Your task to perform on an android device: check data usage Image 0: 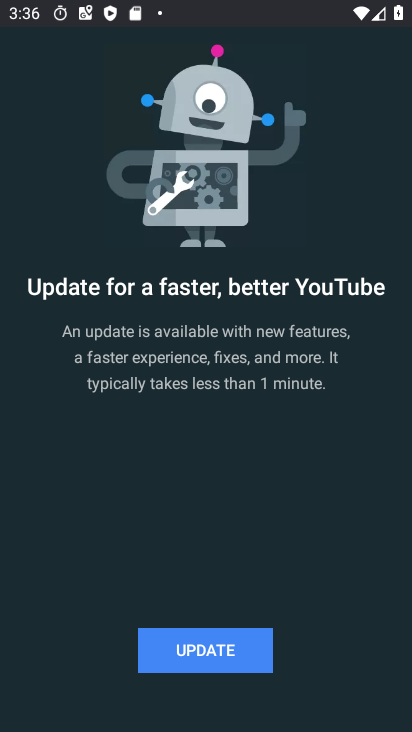
Step 0: press home button
Your task to perform on an android device: check data usage Image 1: 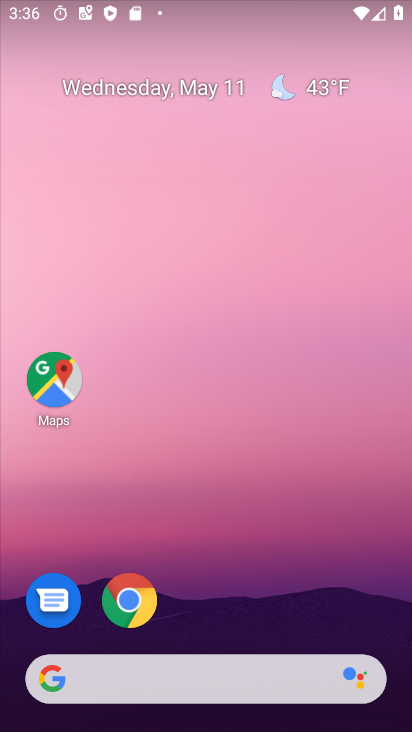
Step 1: drag from (330, 637) to (386, 4)
Your task to perform on an android device: check data usage Image 2: 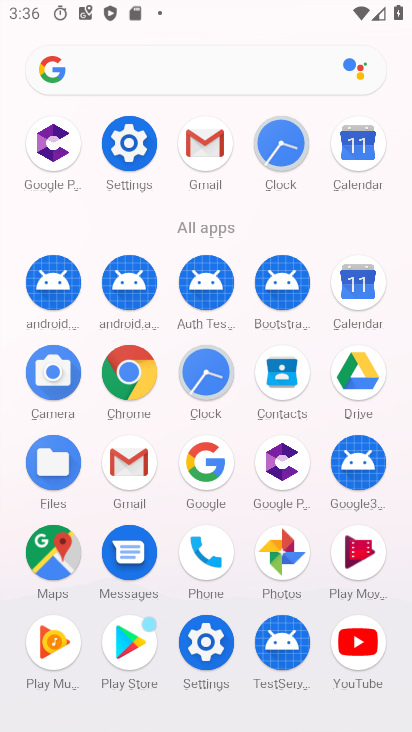
Step 2: click (128, 145)
Your task to perform on an android device: check data usage Image 3: 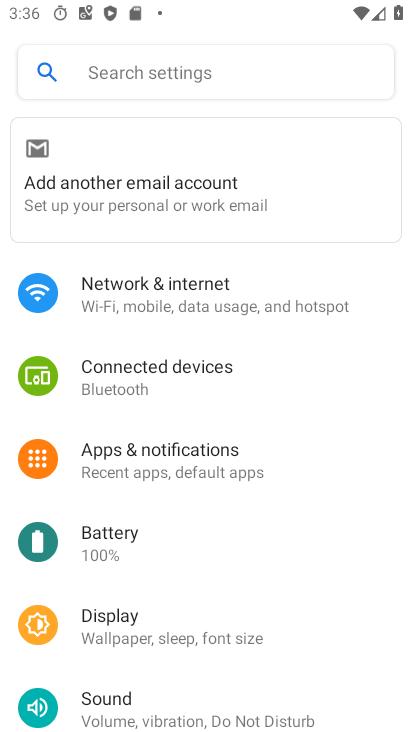
Step 3: click (155, 300)
Your task to perform on an android device: check data usage Image 4: 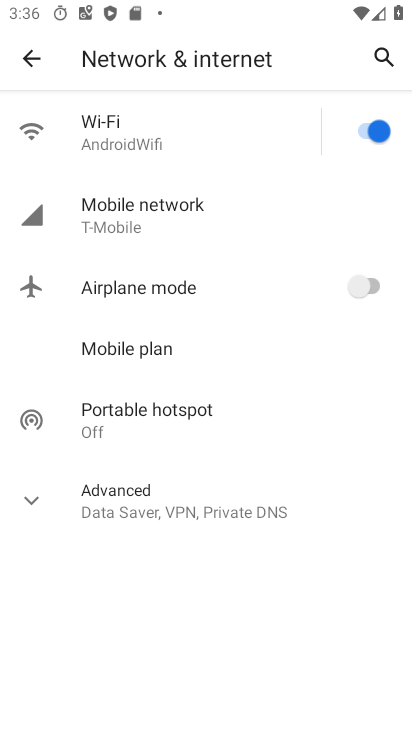
Step 4: click (128, 221)
Your task to perform on an android device: check data usage Image 5: 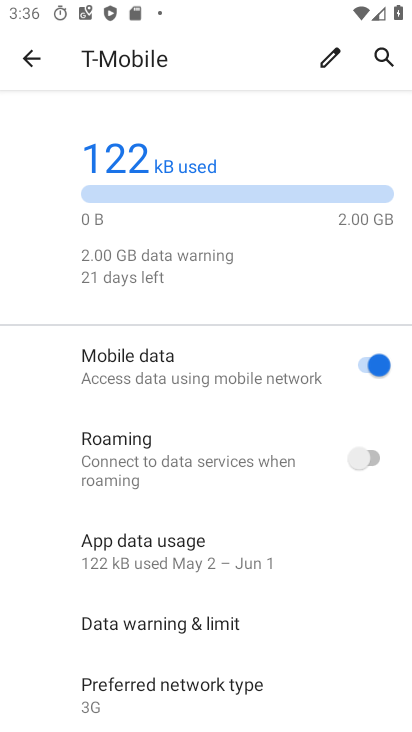
Step 5: click (137, 550)
Your task to perform on an android device: check data usage Image 6: 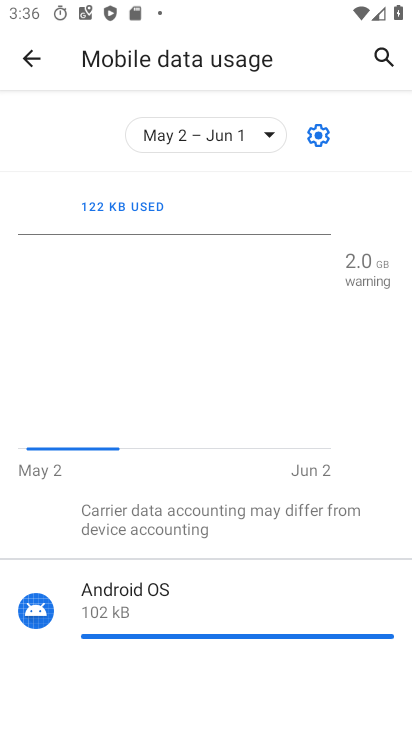
Step 6: task complete